Your task to perform on an android device: Open Google Chrome and click the shortcut for Amazon.com Image 0: 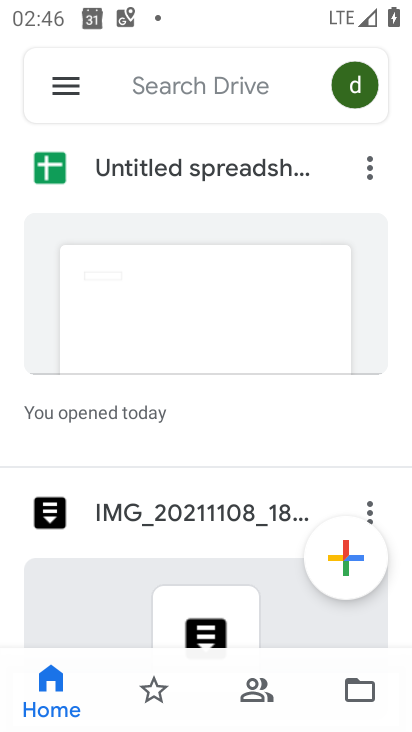
Step 0: press back button
Your task to perform on an android device: Open Google Chrome and click the shortcut for Amazon.com Image 1: 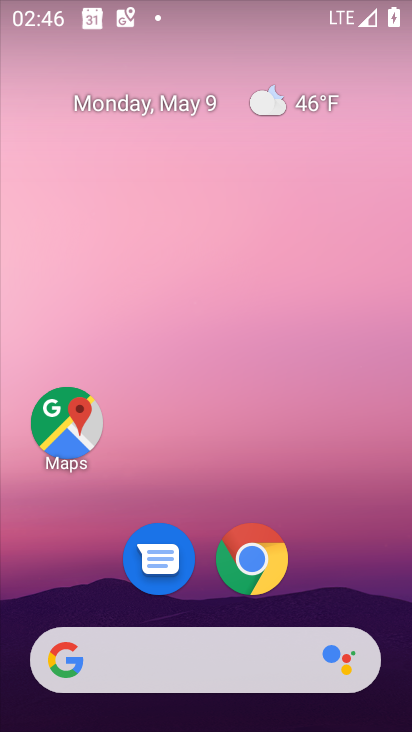
Step 1: click (253, 555)
Your task to perform on an android device: Open Google Chrome and click the shortcut for Amazon.com Image 2: 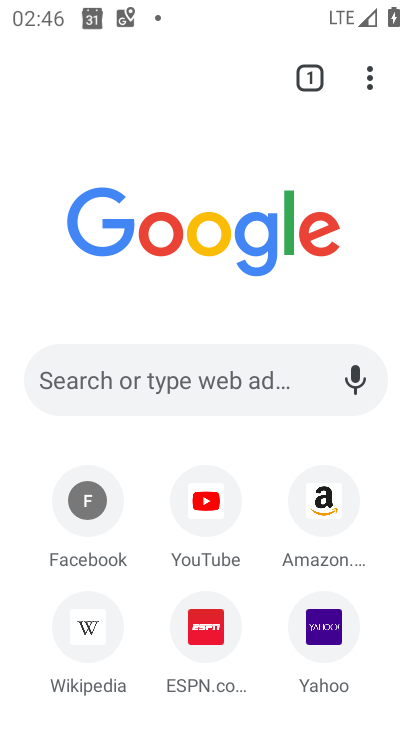
Step 2: click (321, 499)
Your task to perform on an android device: Open Google Chrome and click the shortcut for Amazon.com Image 3: 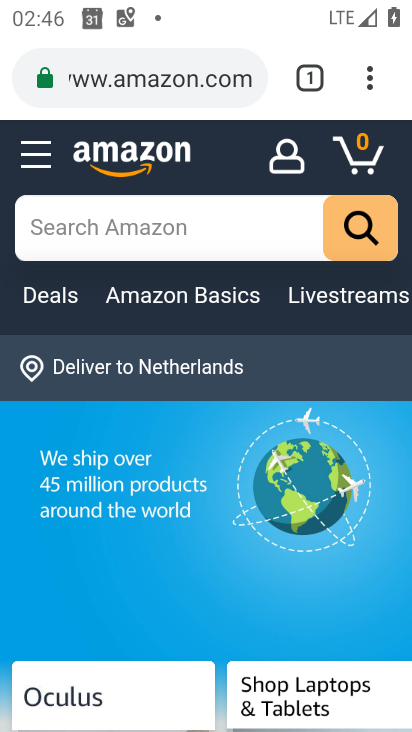
Step 3: task complete